Your task to perform on an android device: Open calendar and show me the first week of next month Image 0: 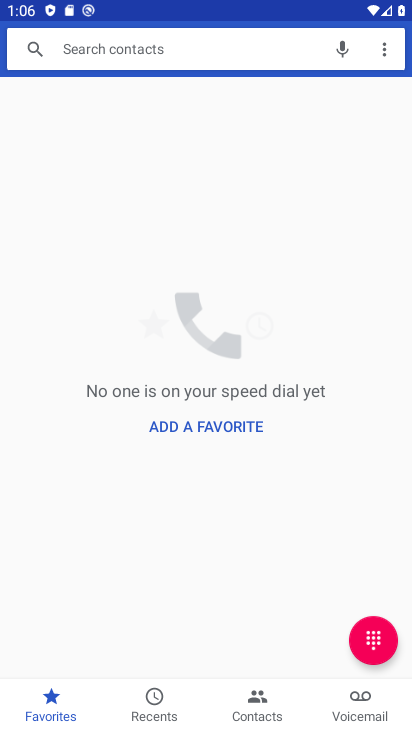
Step 0: press back button
Your task to perform on an android device: Open calendar and show me the first week of next month Image 1: 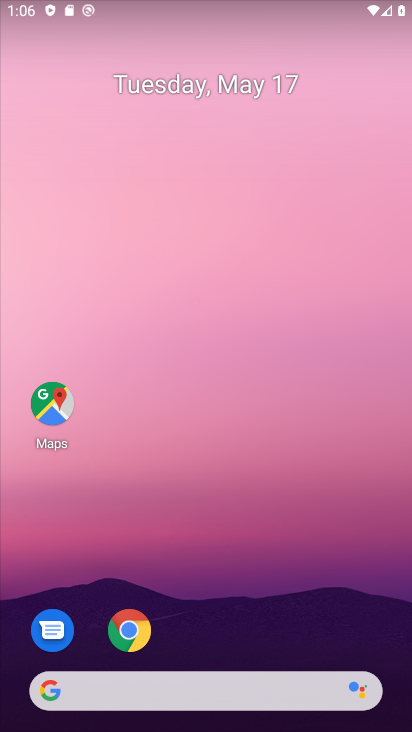
Step 1: drag from (262, 609) to (187, 102)
Your task to perform on an android device: Open calendar and show me the first week of next month Image 2: 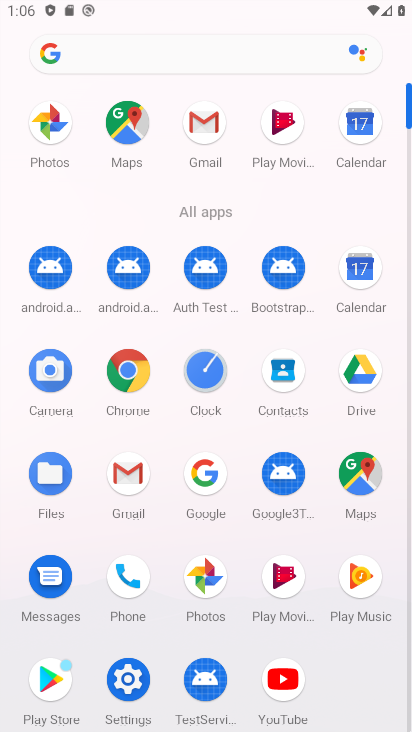
Step 2: click (362, 122)
Your task to perform on an android device: Open calendar and show me the first week of next month Image 3: 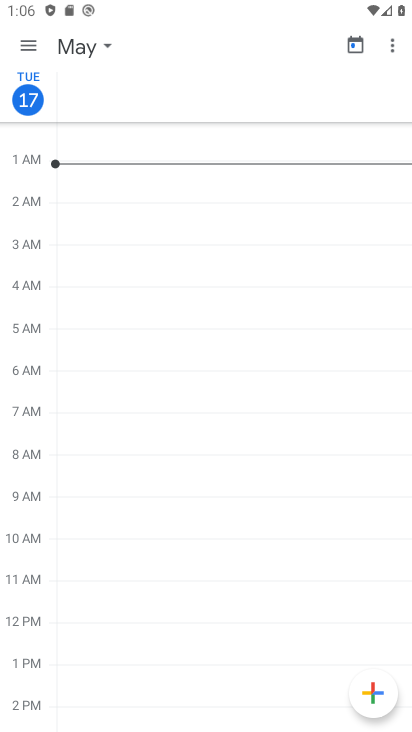
Step 3: click (358, 43)
Your task to perform on an android device: Open calendar and show me the first week of next month Image 4: 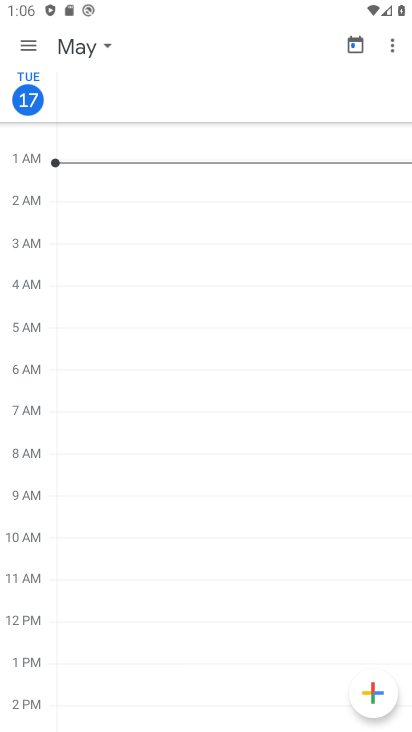
Step 4: click (104, 49)
Your task to perform on an android device: Open calendar and show me the first week of next month Image 5: 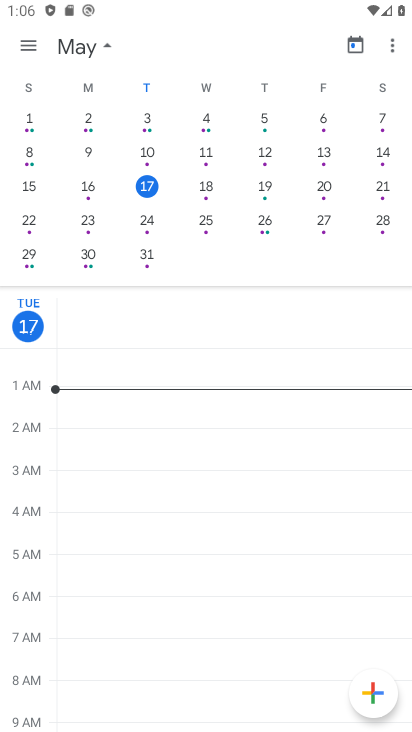
Step 5: drag from (390, 165) to (0, 204)
Your task to perform on an android device: Open calendar and show me the first week of next month Image 6: 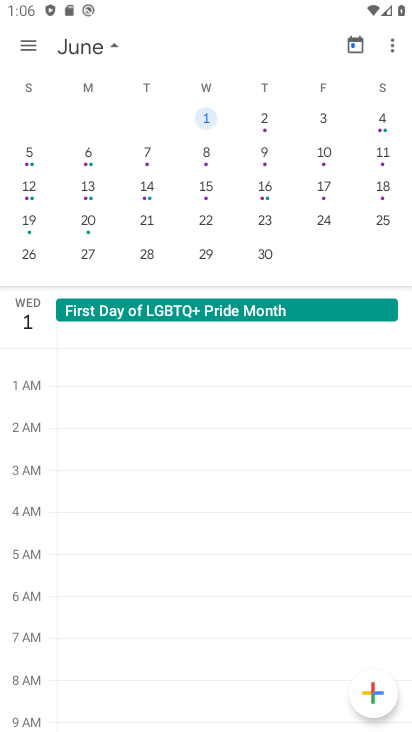
Step 6: click (91, 166)
Your task to perform on an android device: Open calendar and show me the first week of next month Image 7: 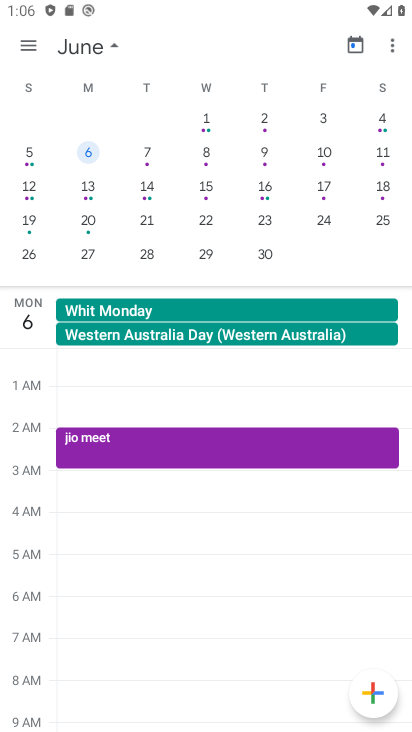
Step 7: click (23, 46)
Your task to perform on an android device: Open calendar and show me the first week of next month Image 8: 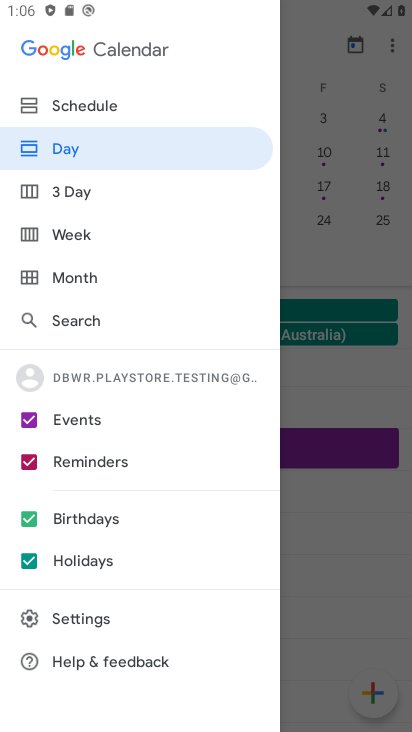
Step 8: click (69, 236)
Your task to perform on an android device: Open calendar and show me the first week of next month Image 9: 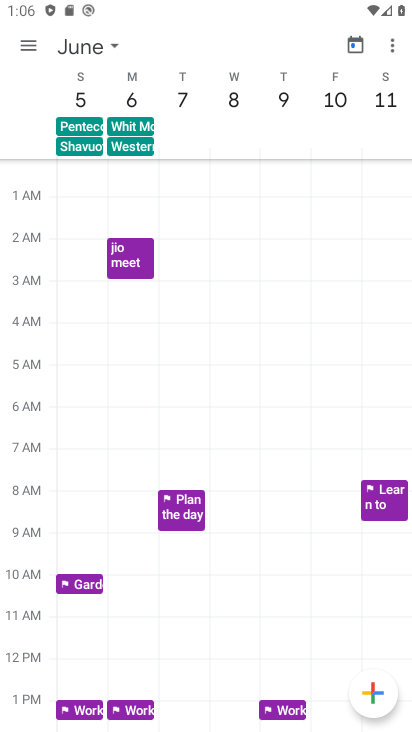
Step 9: task complete